Your task to perform on an android device: Search for pizza restaurants on Maps Image 0: 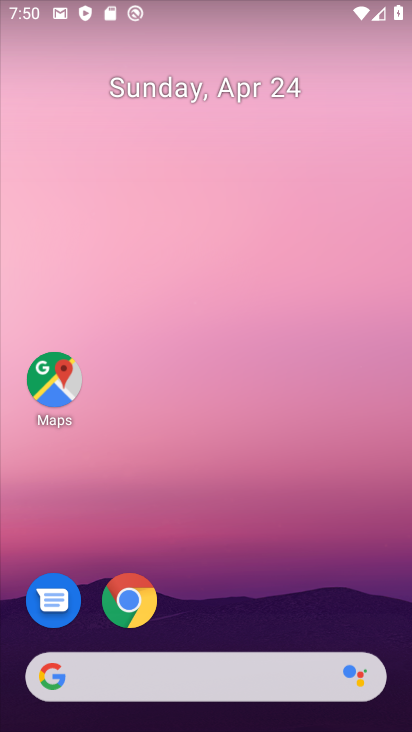
Step 0: drag from (232, 717) to (193, 46)
Your task to perform on an android device: Search for pizza restaurants on Maps Image 1: 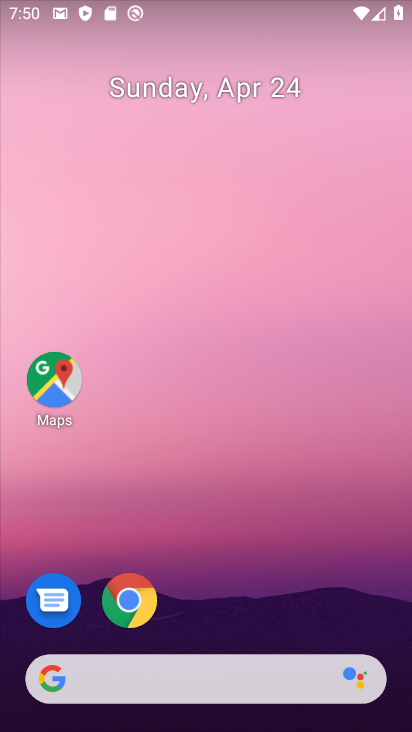
Step 1: drag from (229, 725) to (203, 42)
Your task to perform on an android device: Search for pizza restaurants on Maps Image 2: 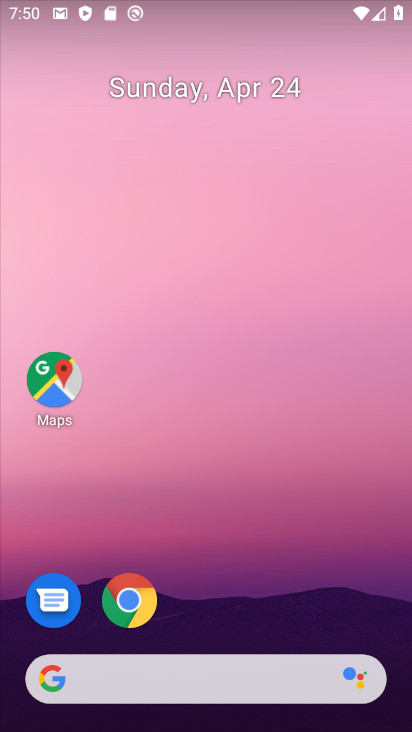
Step 2: drag from (228, 723) to (228, 55)
Your task to perform on an android device: Search for pizza restaurants on Maps Image 3: 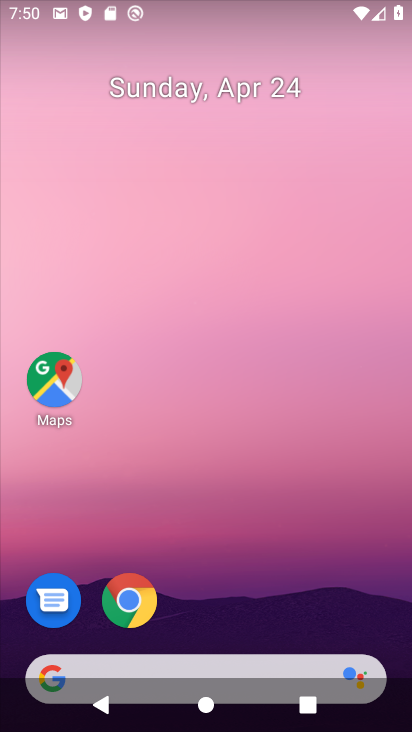
Step 3: drag from (192, 727) to (197, 129)
Your task to perform on an android device: Search for pizza restaurants on Maps Image 4: 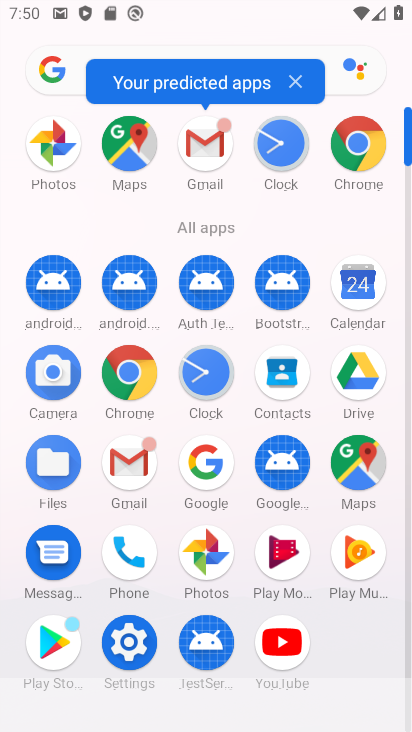
Step 4: click (136, 136)
Your task to perform on an android device: Search for pizza restaurants on Maps Image 5: 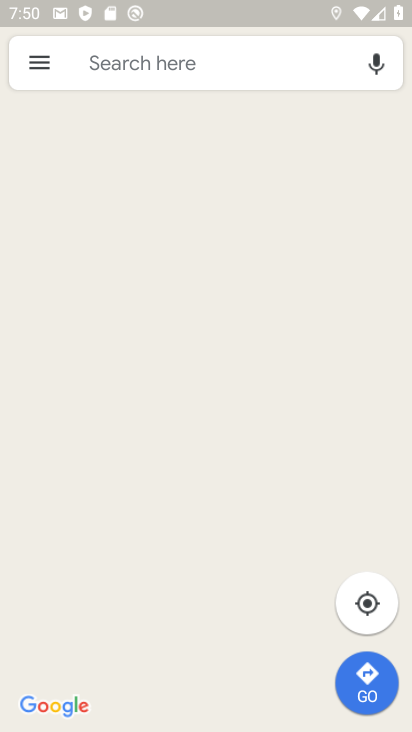
Step 5: click (202, 60)
Your task to perform on an android device: Search for pizza restaurants on Maps Image 6: 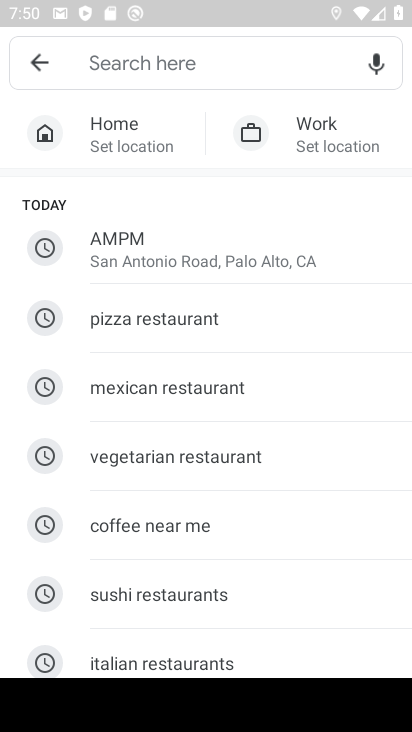
Step 6: type "pizza restaurants "
Your task to perform on an android device: Search for pizza restaurants on Maps Image 7: 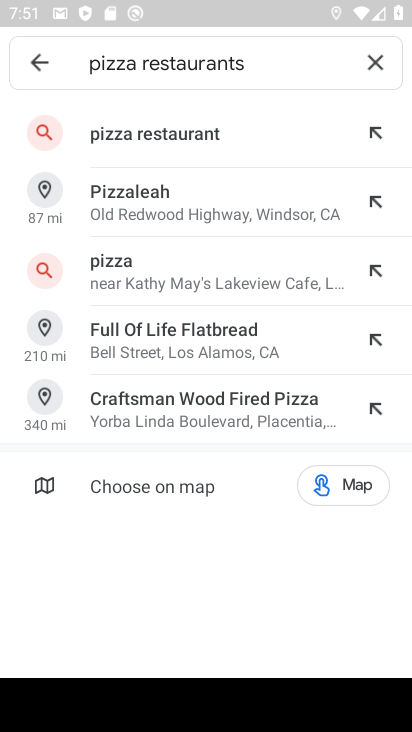
Step 7: click (151, 124)
Your task to perform on an android device: Search for pizza restaurants on Maps Image 8: 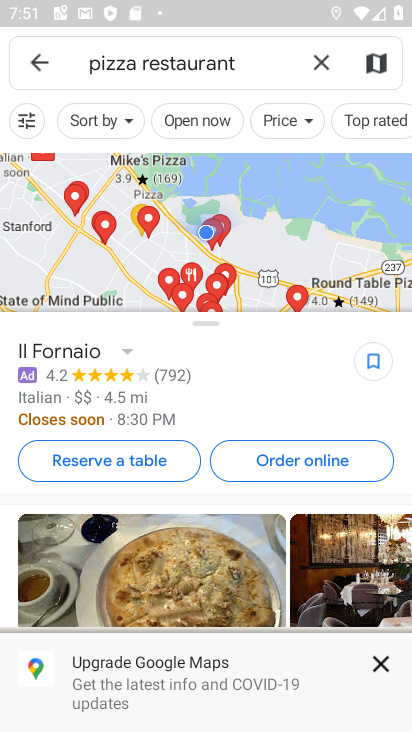
Step 8: task complete